Your task to perform on an android device: star an email in the gmail app Image 0: 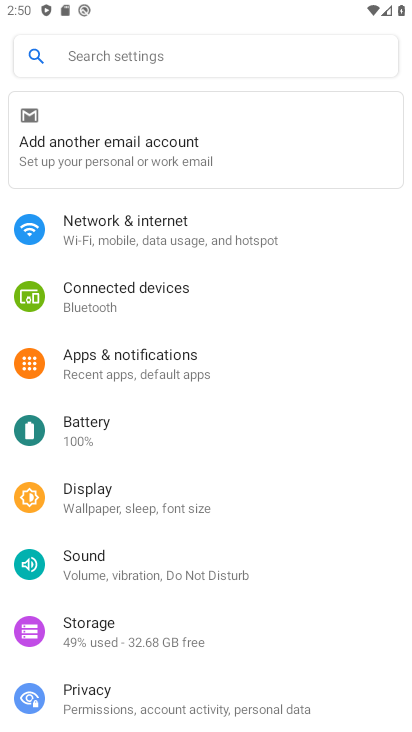
Step 0: press home button
Your task to perform on an android device: star an email in the gmail app Image 1: 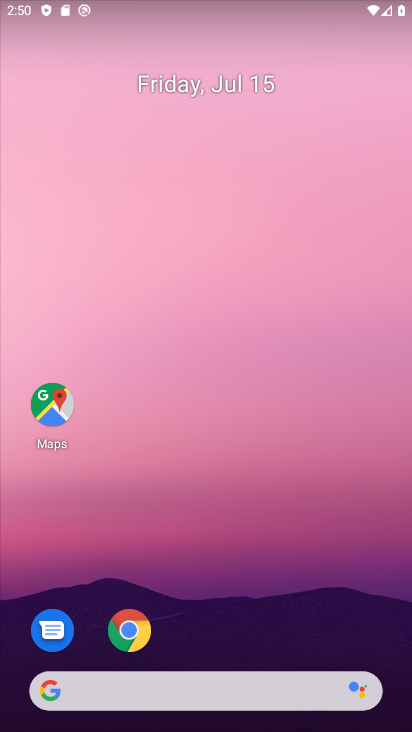
Step 1: drag from (235, 723) to (235, 93)
Your task to perform on an android device: star an email in the gmail app Image 2: 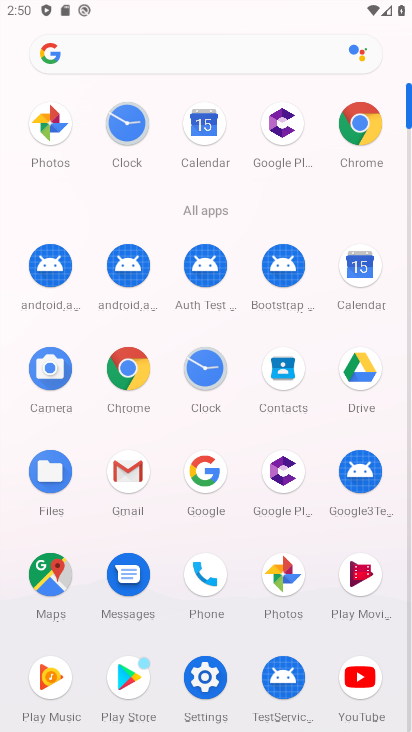
Step 2: click (116, 470)
Your task to perform on an android device: star an email in the gmail app Image 3: 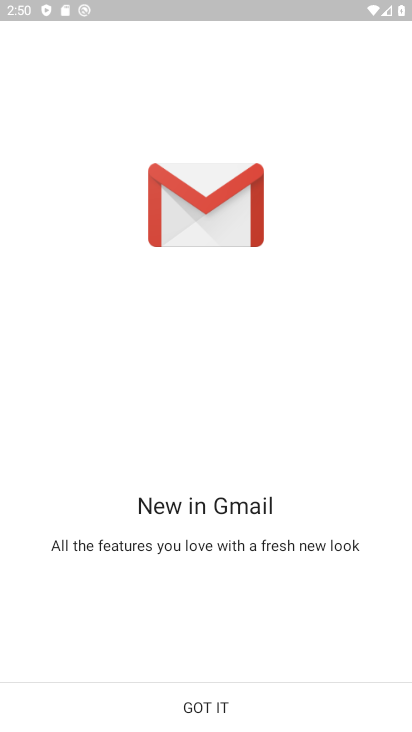
Step 3: click (253, 703)
Your task to perform on an android device: star an email in the gmail app Image 4: 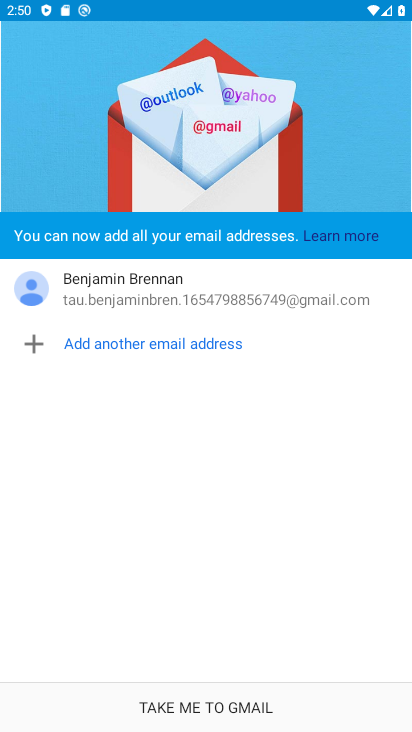
Step 4: click (223, 704)
Your task to perform on an android device: star an email in the gmail app Image 5: 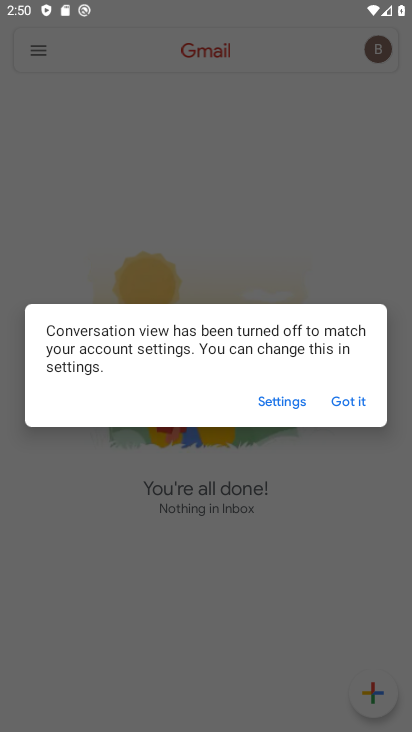
Step 5: click (358, 406)
Your task to perform on an android device: star an email in the gmail app Image 6: 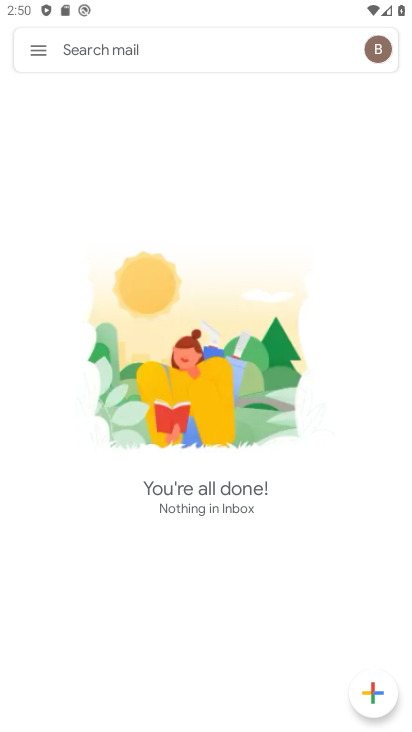
Step 6: task complete